Your task to perform on an android device: Open eBay Image 0: 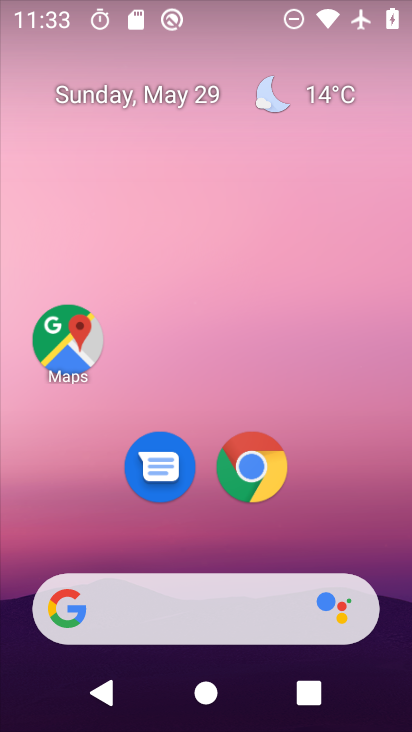
Step 0: click (251, 462)
Your task to perform on an android device: Open eBay Image 1: 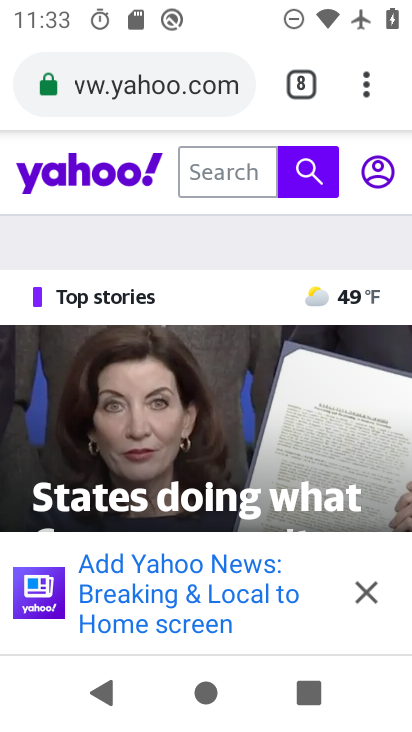
Step 1: click (304, 72)
Your task to perform on an android device: Open eBay Image 2: 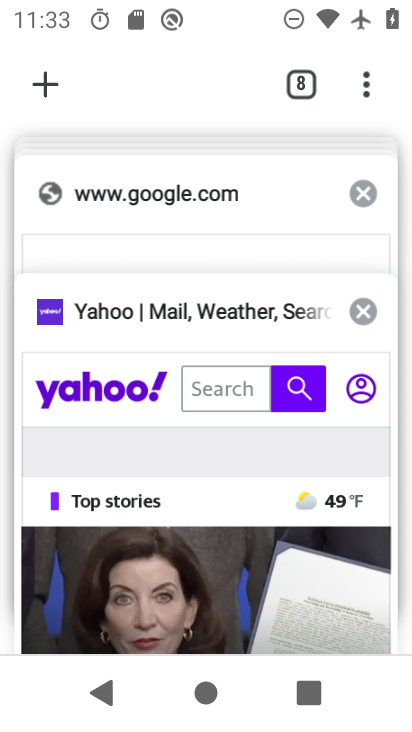
Step 2: drag from (169, 254) to (170, 462)
Your task to perform on an android device: Open eBay Image 3: 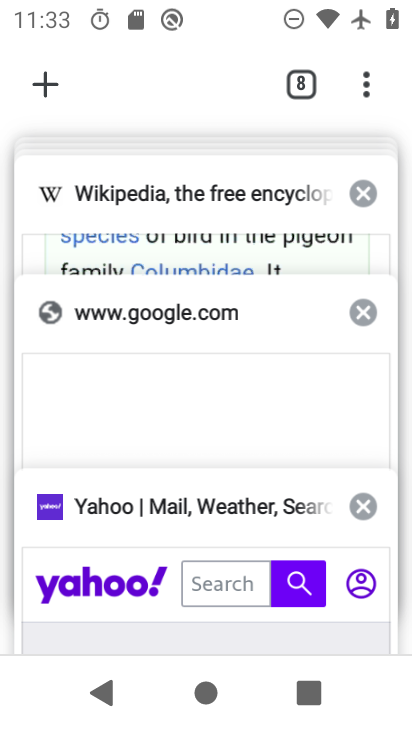
Step 3: drag from (186, 243) to (244, 472)
Your task to perform on an android device: Open eBay Image 4: 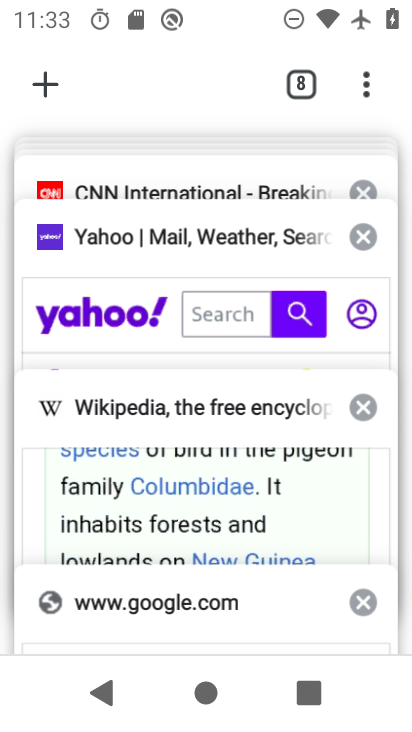
Step 4: drag from (212, 250) to (223, 458)
Your task to perform on an android device: Open eBay Image 5: 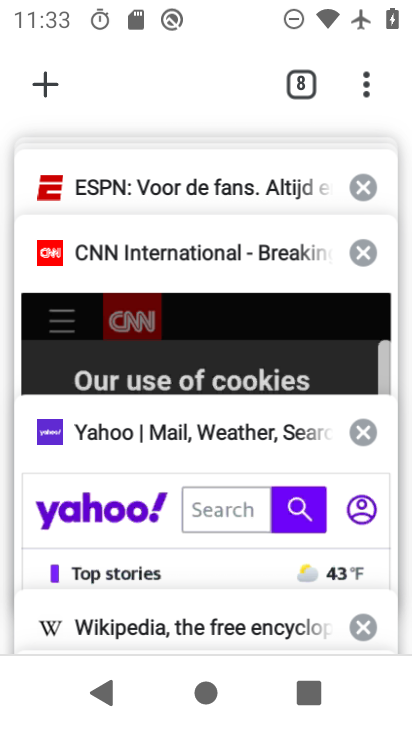
Step 5: drag from (183, 190) to (184, 369)
Your task to perform on an android device: Open eBay Image 6: 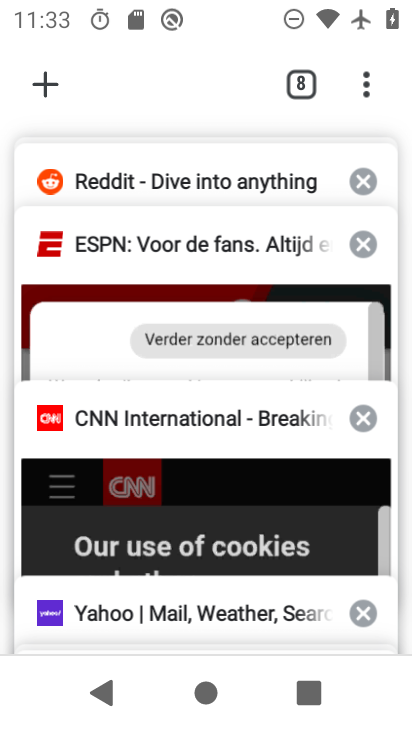
Step 6: drag from (184, 201) to (214, 422)
Your task to perform on an android device: Open eBay Image 7: 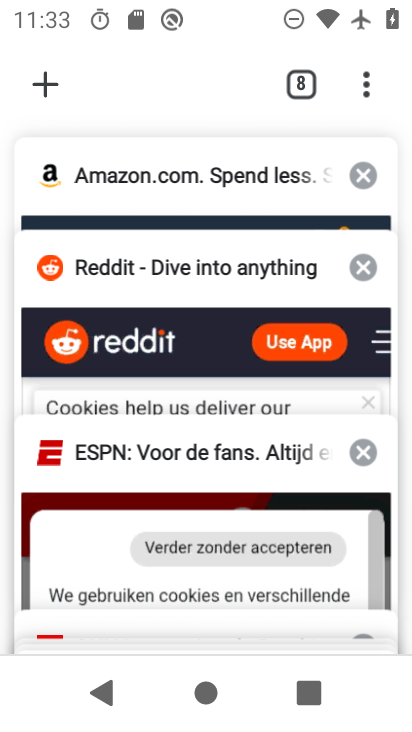
Step 7: drag from (180, 203) to (200, 429)
Your task to perform on an android device: Open eBay Image 8: 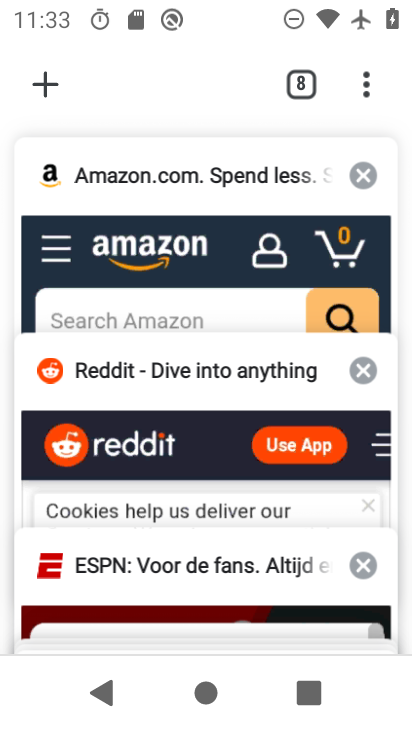
Step 8: drag from (203, 182) to (225, 383)
Your task to perform on an android device: Open eBay Image 9: 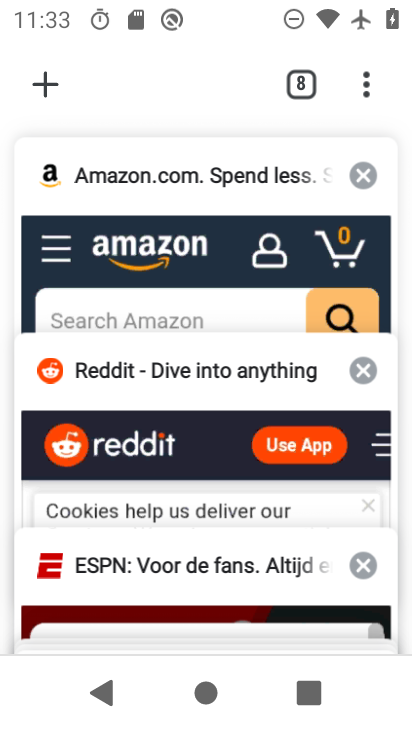
Step 9: click (56, 91)
Your task to perform on an android device: Open eBay Image 10: 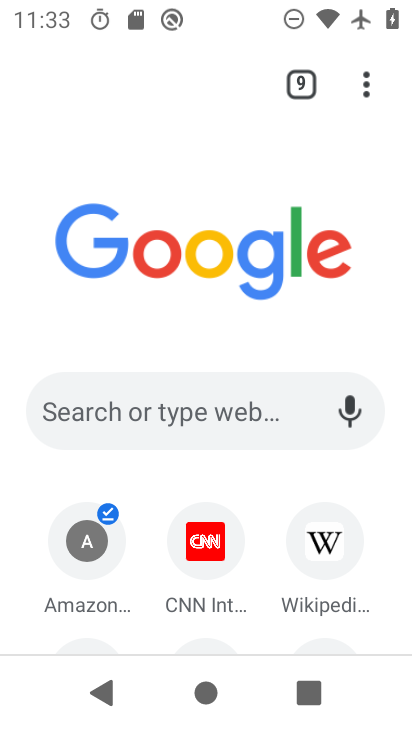
Step 10: click (211, 419)
Your task to perform on an android device: Open eBay Image 11: 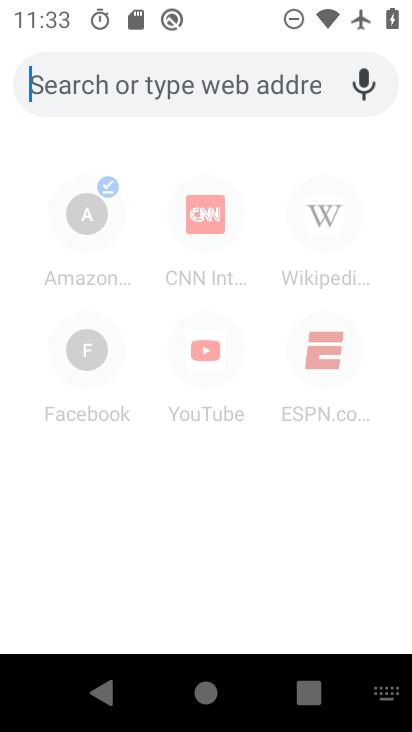
Step 11: type "eBay"
Your task to perform on an android device: Open eBay Image 12: 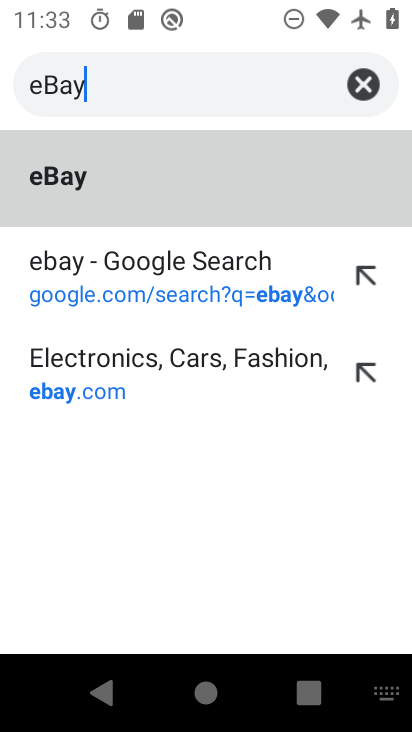
Step 12: click (170, 175)
Your task to perform on an android device: Open eBay Image 13: 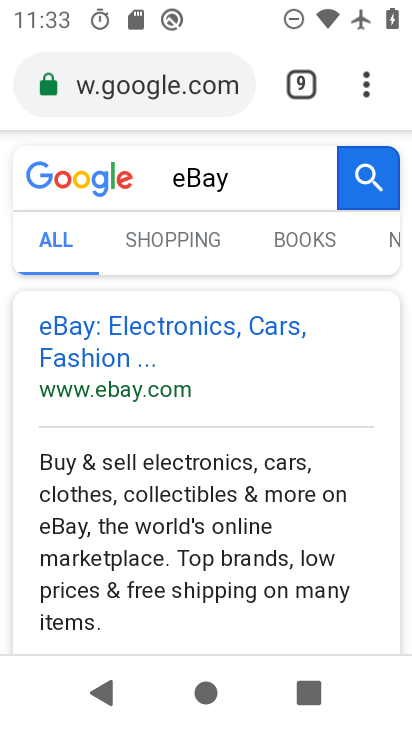
Step 13: click (71, 340)
Your task to perform on an android device: Open eBay Image 14: 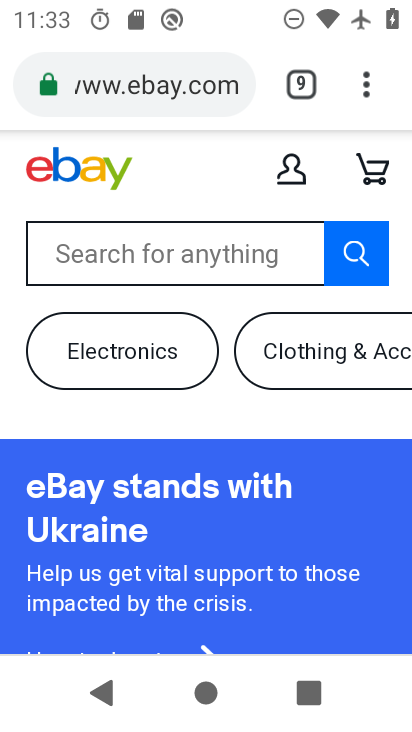
Step 14: task complete